Your task to perform on an android device: Go to CNN.com Image 0: 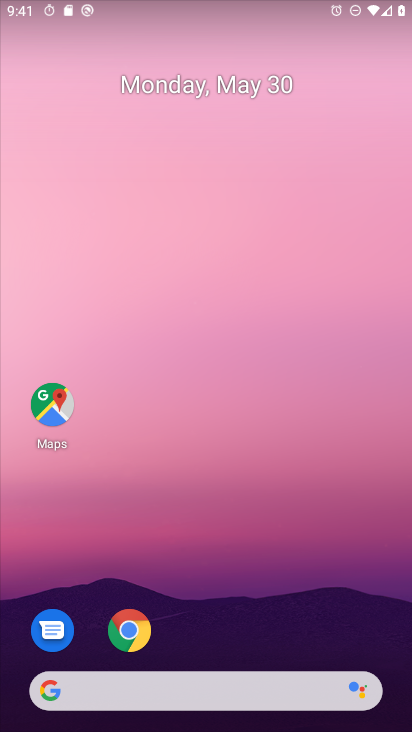
Step 0: drag from (333, 615) to (383, 88)
Your task to perform on an android device: Go to CNN.com Image 1: 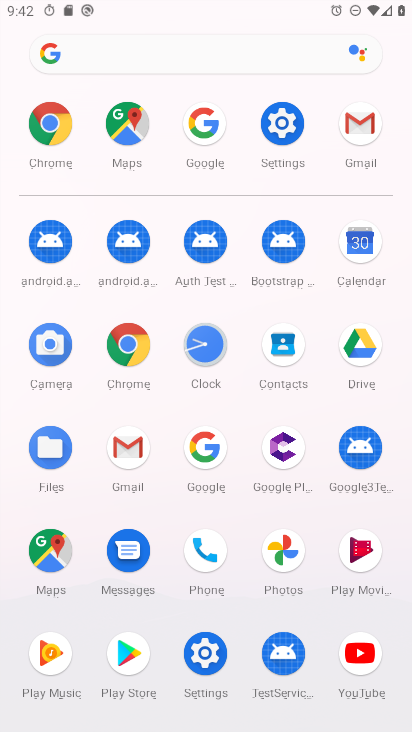
Step 1: click (196, 145)
Your task to perform on an android device: Go to CNN.com Image 2: 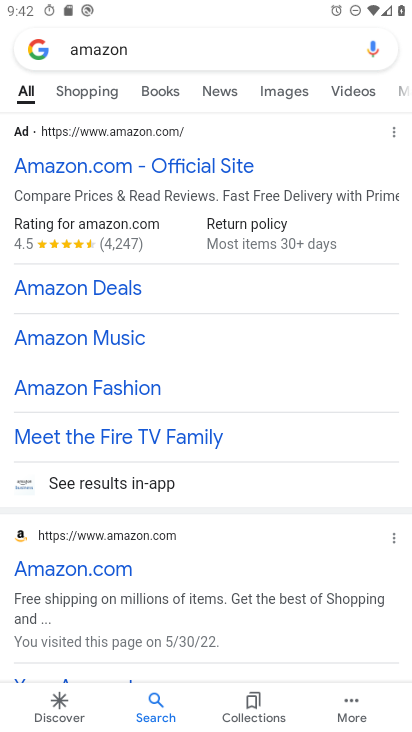
Step 2: press back button
Your task to perform on an android device: Go to CNN.com Image 3: 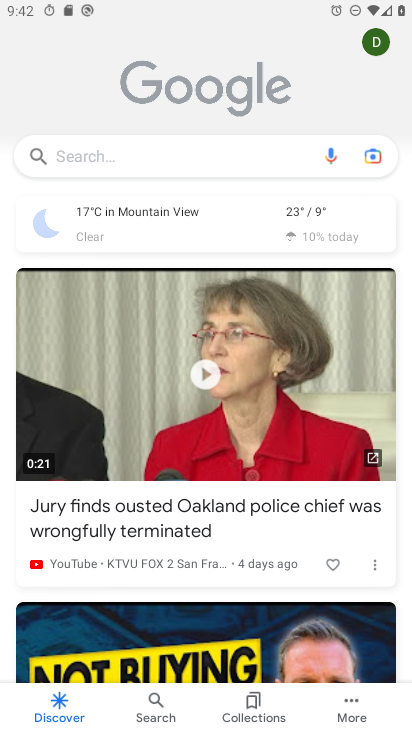
Step 3: click (143, 166)
Your task to perform on an android device: Go to CNN.com Image 4: 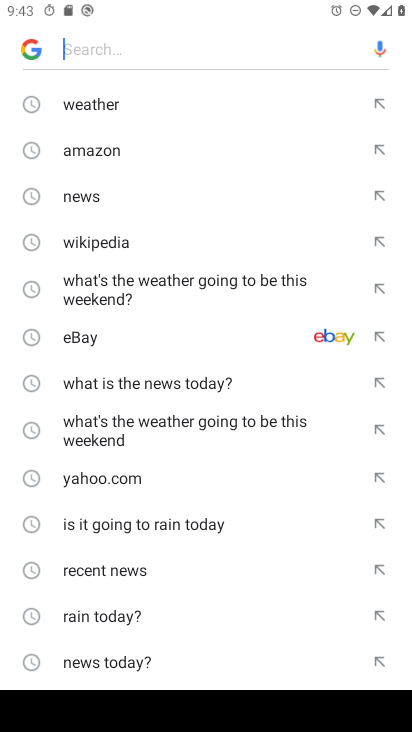
Step 4: drag from (115, 601) to (146, 167)
Your task to perform on an android device: Go to CNN.com Image 5: 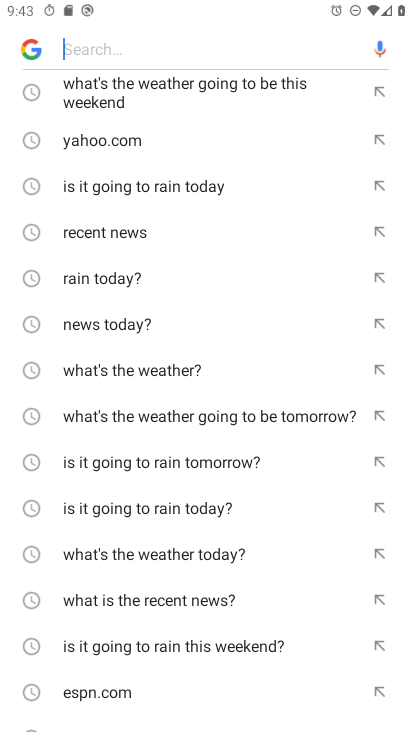
Step 5: drag from (167, 649) to (233, 66)
Your task to perform on an android device: Go to CNN.com Image 6: 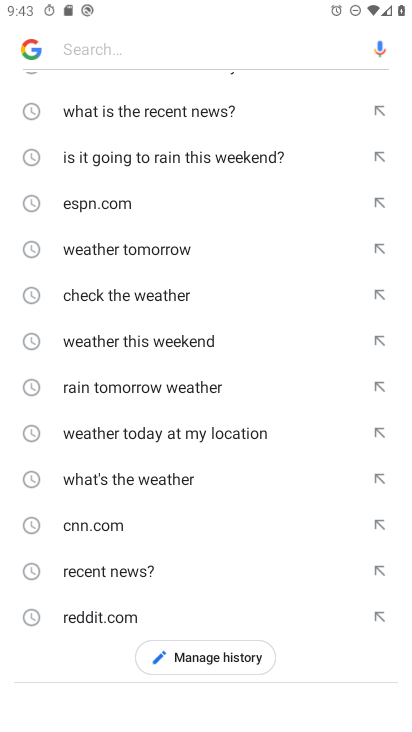
Step 6: click (127, 531)
Your task to perform on an android device: Go to CNN.com Image 7: 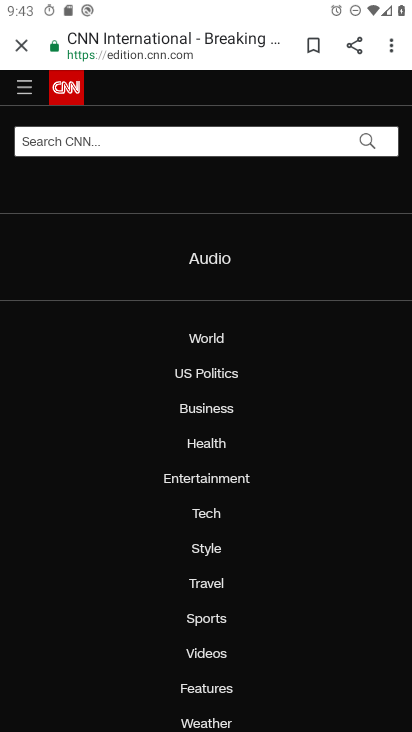
Step 7: task complete